Your task to perform on an android device: change the clock style Image 0: 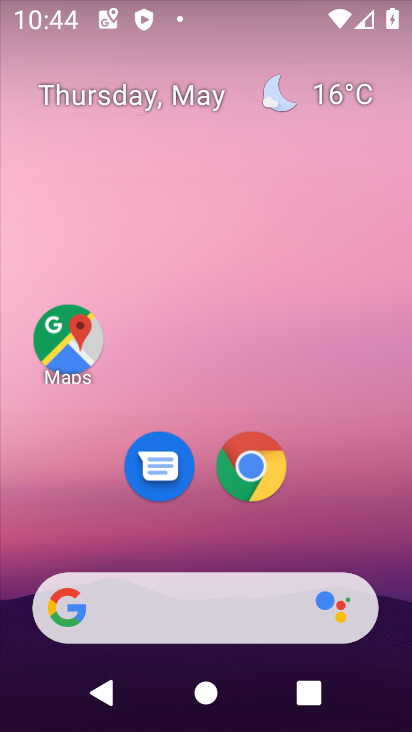
Step 0: drag from (321, 482) to (367, 186)
Your task to perform on an android device: change the clock style Image 1: 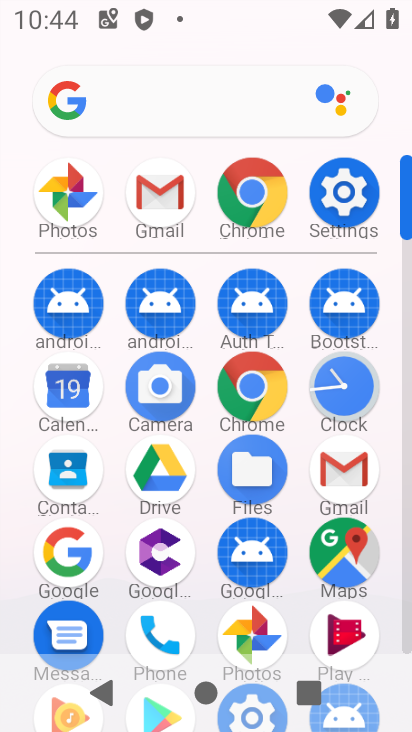
Step 1: click (350, 381)
Your task to perform on an android device: change the clock style Image 2: 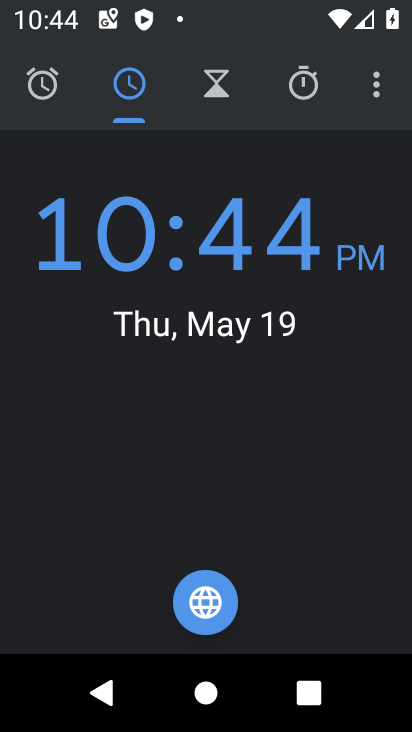
Step 2: click (390, 91)
Your task to perform on an android device: change the clock style Image 3: 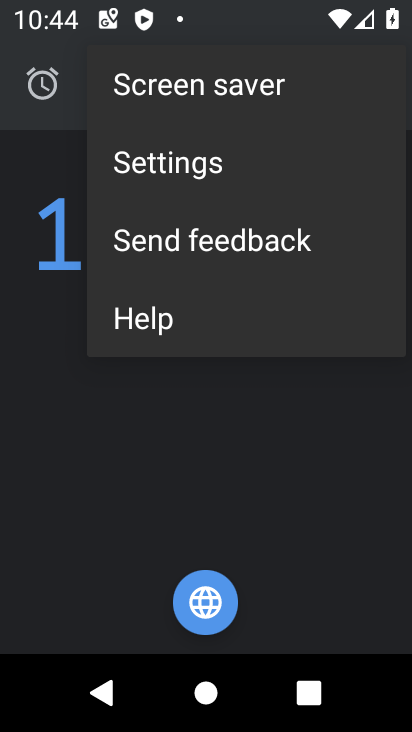
Step 3: click (226, 144)
Your task to perform on an android device: change the clock style Image 4: 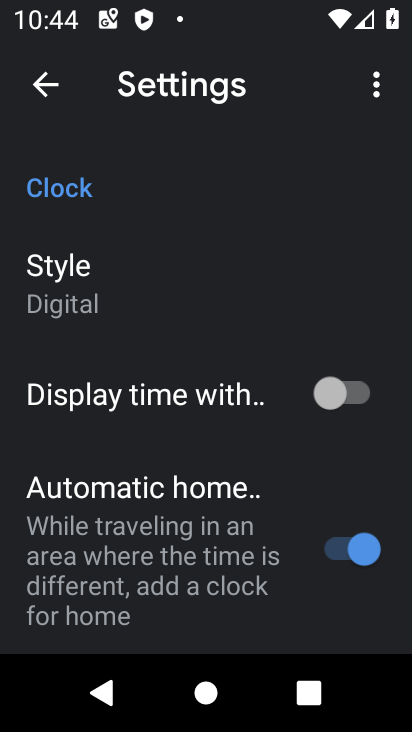
Step 4: click (121, 258)
Your task to perform on an android device: change the clock style Image 5: 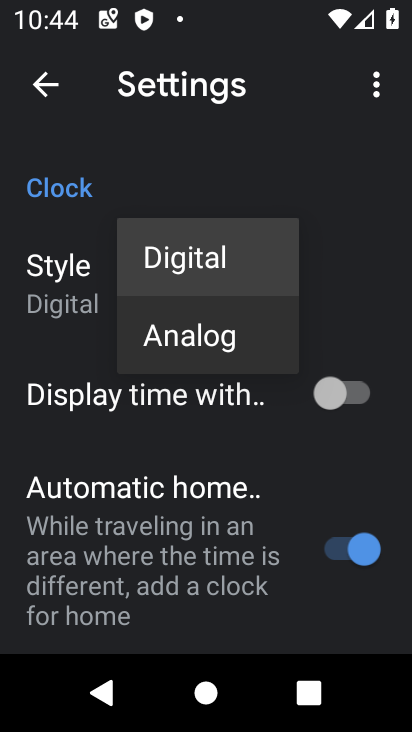
Step 5: click (172, 347)
Your task to perform on an android device: change the clock style Image 6: 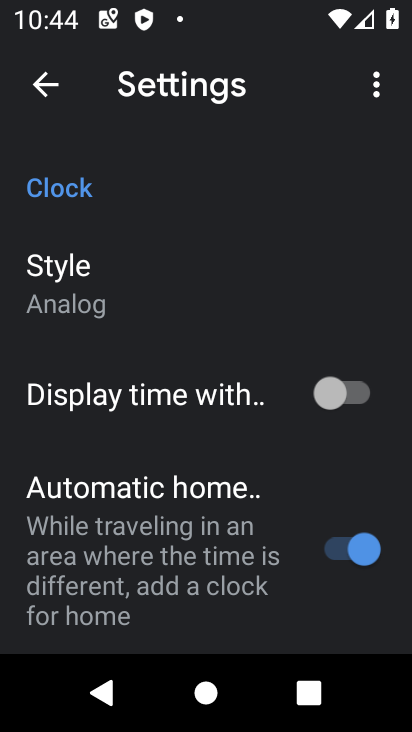
Step 6: task complete